Your task to perform on an android device: open sync settings in chrome Image 0: 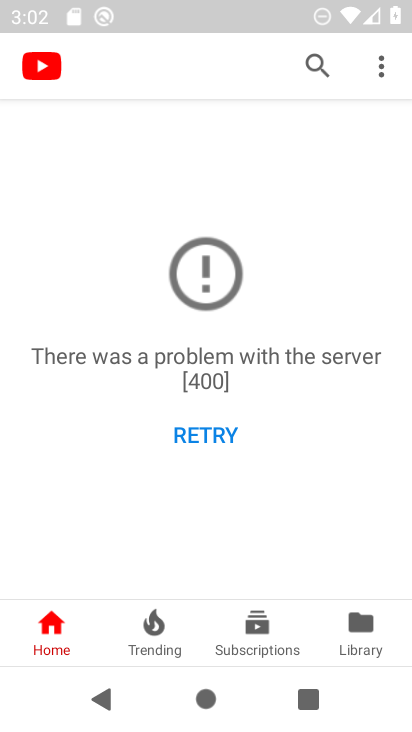
Step 0: press home button
Your task to perform on an android device: open sync settings in chrome Image 1: 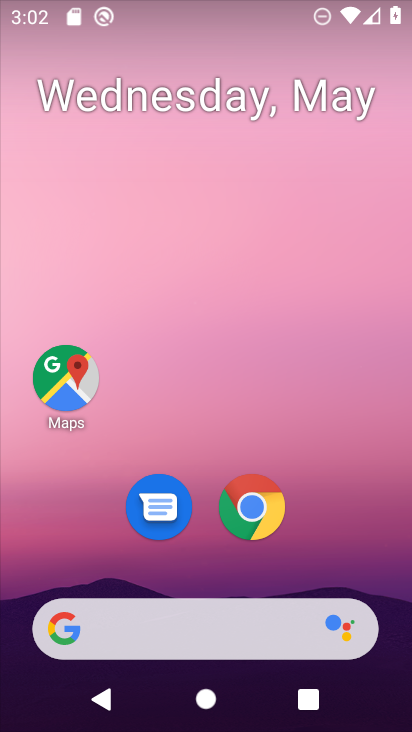
Step 1: click (279, 465)
Your task to perform on an android device: open sync settings in chrome Image 2: 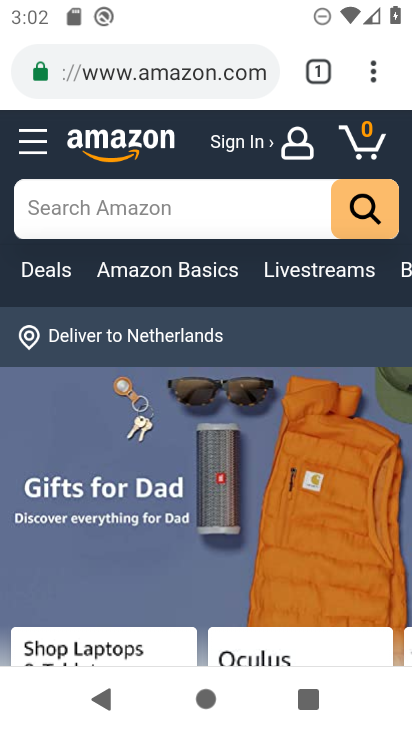
Step 2: click (377, 81)
Your task to perform on an android device: open sync settings in chrome Image 3: 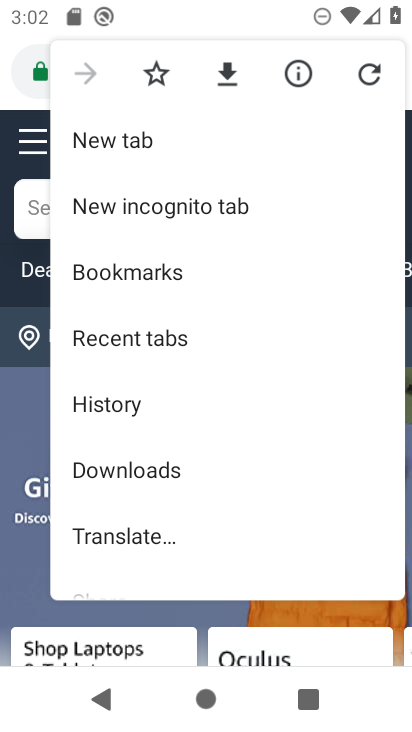
Step 3: drag from (115, 526) to (172, 251)
Your task to perform on an android device: open sync settings in chrome Image 4: 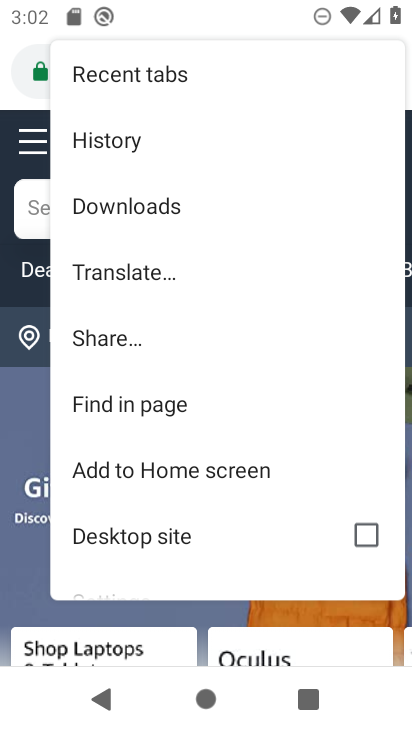
Step 4: drag from (136, 546) to (188, 284)
Your task to perform on an android device: open sync settings in chrome Image 5: 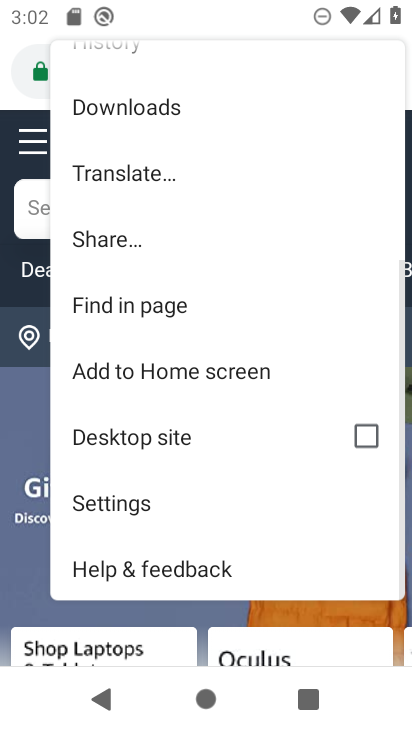
Step 5: click (139, 510)
Your task to perform on an android device: open sync settings in chrome Image 6: 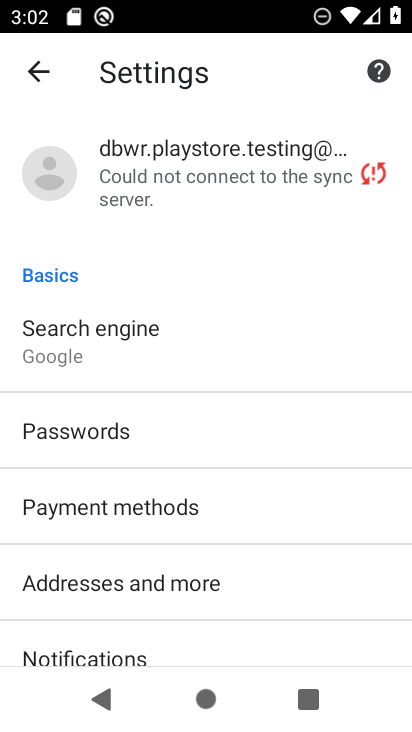
Step 6: click (186, 186)
Your task to perform on an android device: open sync settings in chrome Image 7: 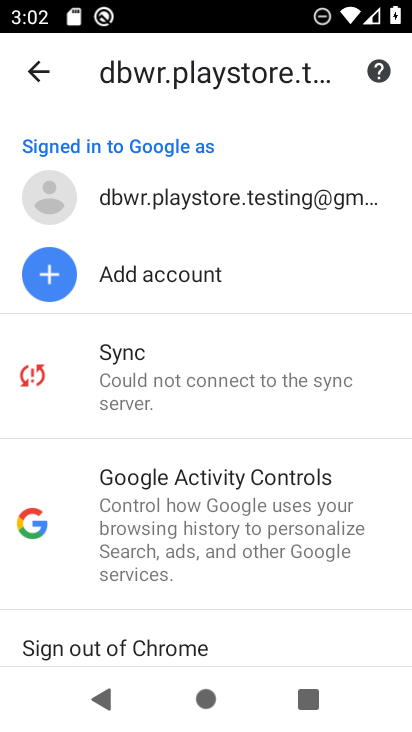
Step 7: click (160, 369)
Your task to perform on an android device: open sync settings in chrome Image 8: 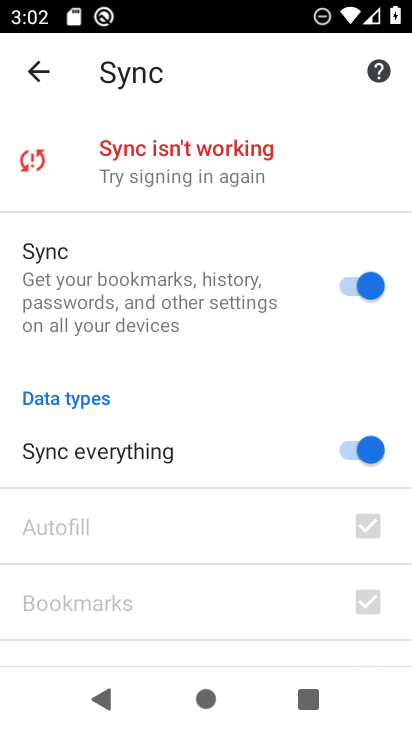
Step 8: click (223, 160)
Your task to perform on an android device: open sync settings in chrome Image 9: 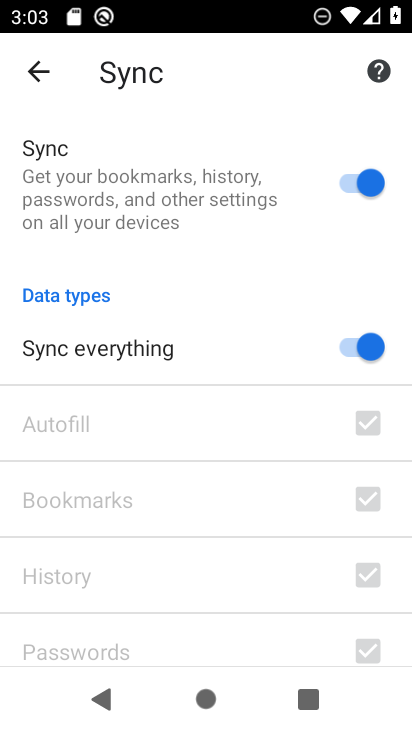
Step 9: task complete